Your task to perform on an android device: Open Google Chrome and click the shortcut for Amazon.com Image 0: 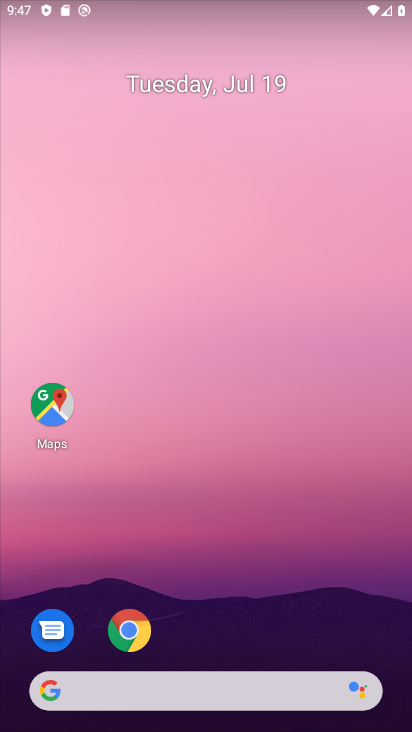
Step 0: click (133, 624)
Your task to perform on an android device: Open Google Chrome and click the shortcut for Amazon.com Image 1: 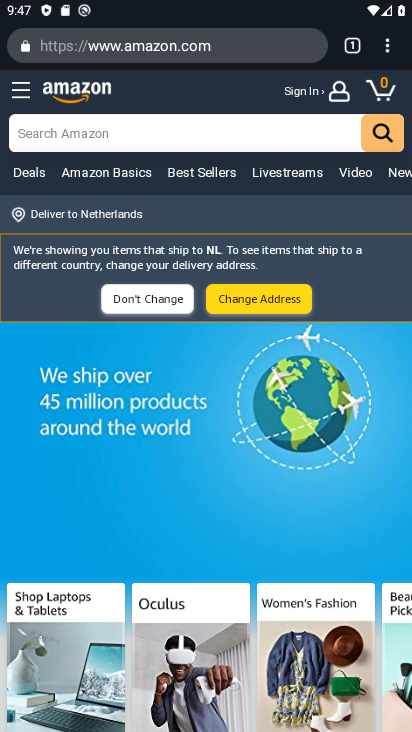
Step 1: task complete